Your task to perform on an android device: Open Youtube and go to the subscriptions tab Image 0: 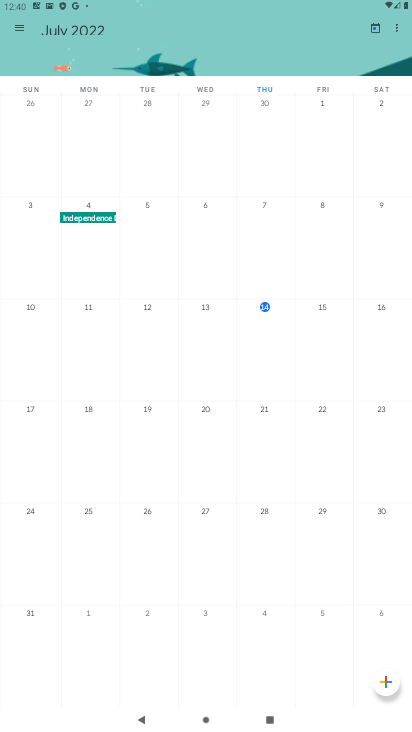
Step 0: press home button
Your task to perform on an android device: Open Youtube and go to the subscriptions tab Image 1: 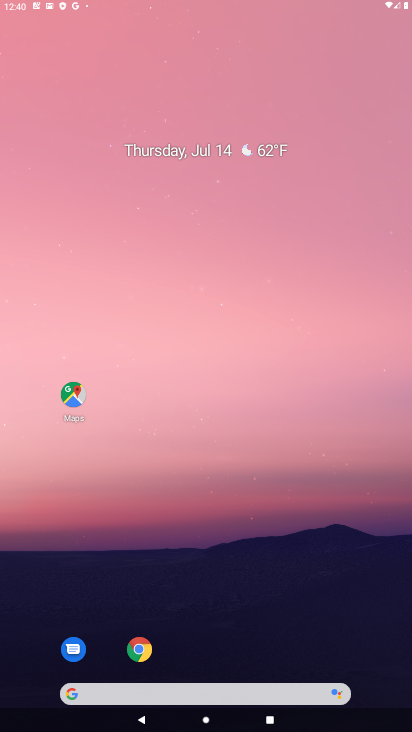
Step 1: drag from (360, 302) to (293, 7)
Your task to perform on an android device: Open Youtube and go to the subscriptions tab Image 2: 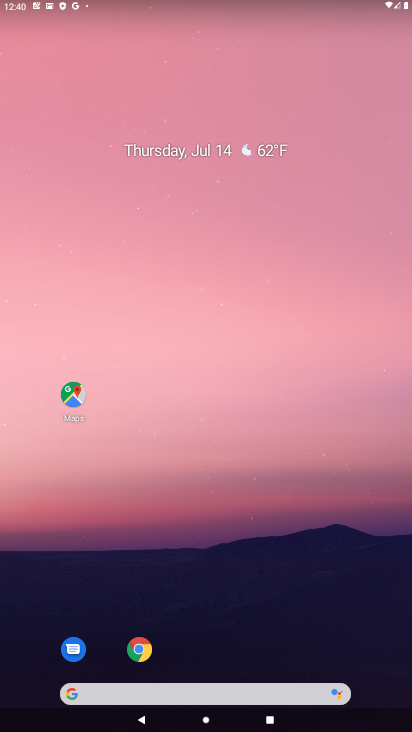
Step 2: click (391, 703)
Your task to perform on an android device: Open Youtube and go to the subscriptions tab Image 3: 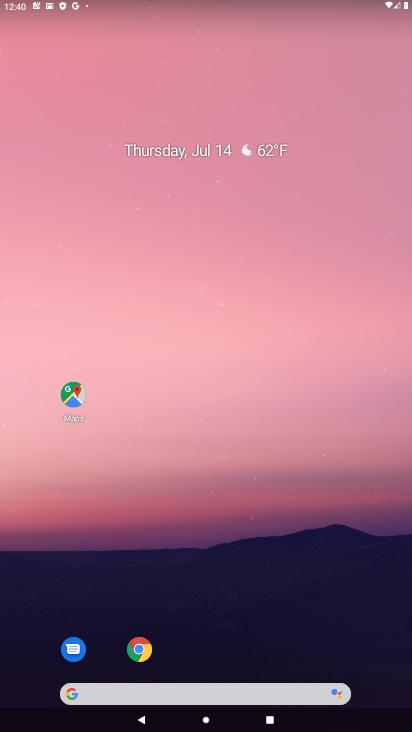
Step 3: drag from (391, 683) to (322, 30)
Your task to perform on an android device: Open Youtube and go to the subscriptions tab Image 4: 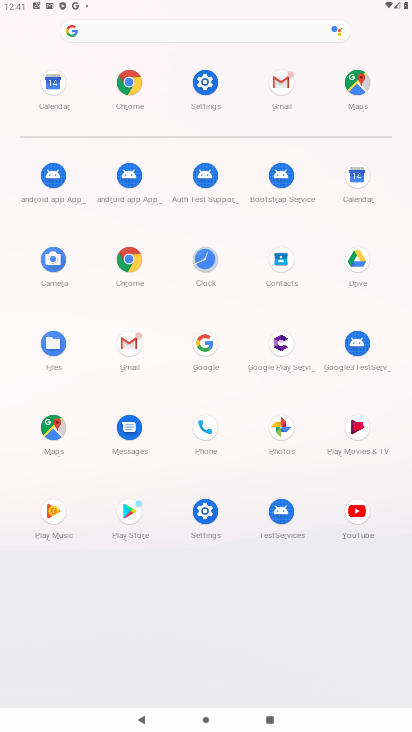
Step 4: click (366, 513)
Your task to perform on an android device: Open Youtube and go to the subscriptions tab Image 5: 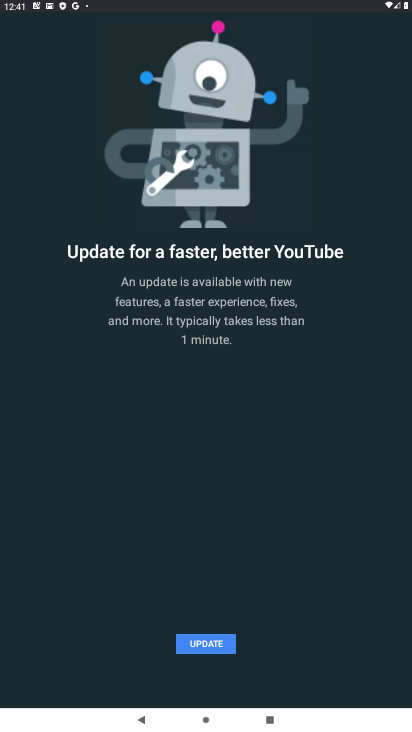
Step 5: click (210, 652)
Your task to perform on an android device: Open Youtube and go to the subscriptions tab Image 6: 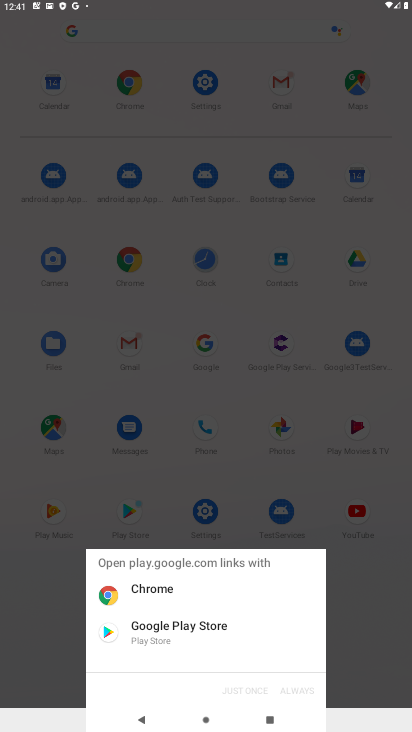
Step 6: drag from (156, 624) to (194, 624)
Your task to perform on an android device: Open Youtube and go to the subscriptions tab Image 7: 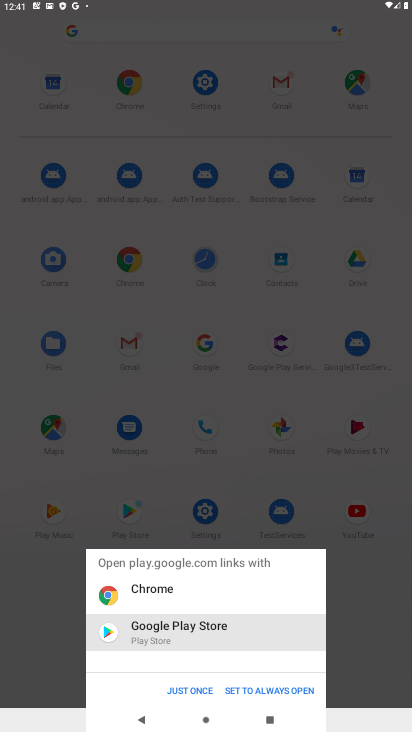
Step 7: click (194, 683)
Your task to perform on an android device: Open Youtube and go to the subscriptions tab Image 8: 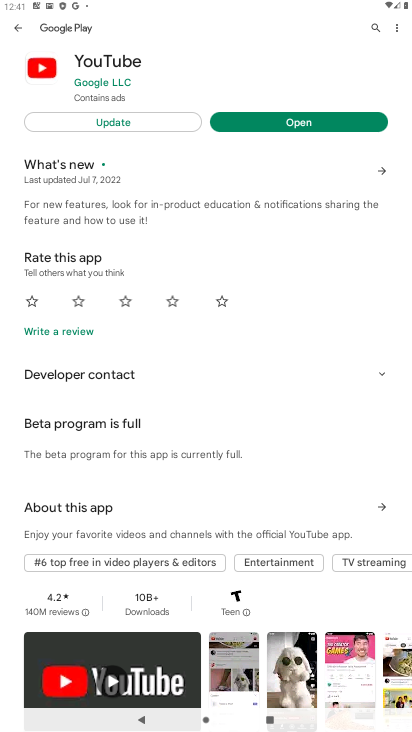
Step 8: click (127, 122)
Your task to perform on an android device: Open Youtube and go to the subscriptions tab Image 9: 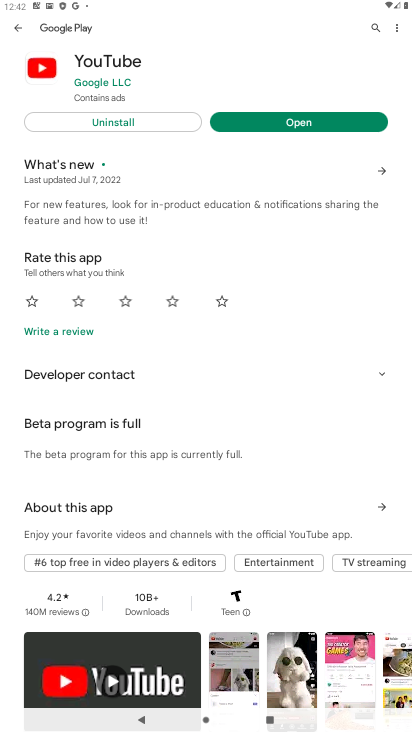
Step 9: click (254, 121)
Your task to perform on an android device: Open Youtube and go to the subscriptions tab Image 10: 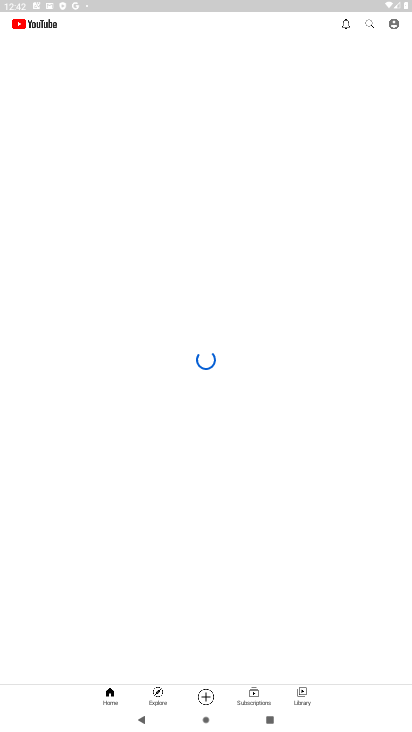
Step 10: click (253, 691)
Your task to perform on an android device: Open Youtube and go to the subscriptions tab Image 11: 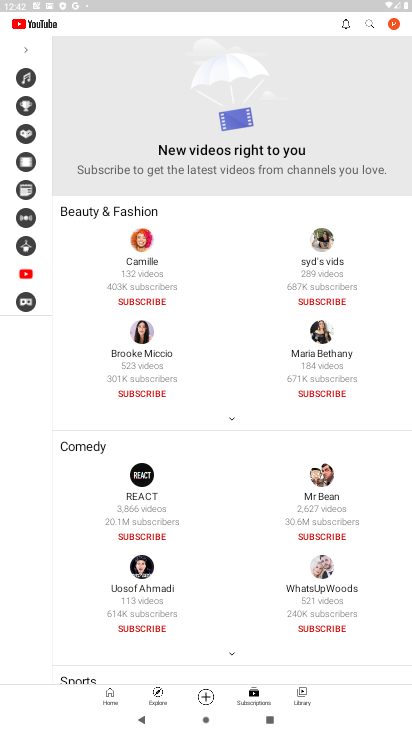
Step 11: task complete